Your task to perform on an android device: Go to location settings Image 0: 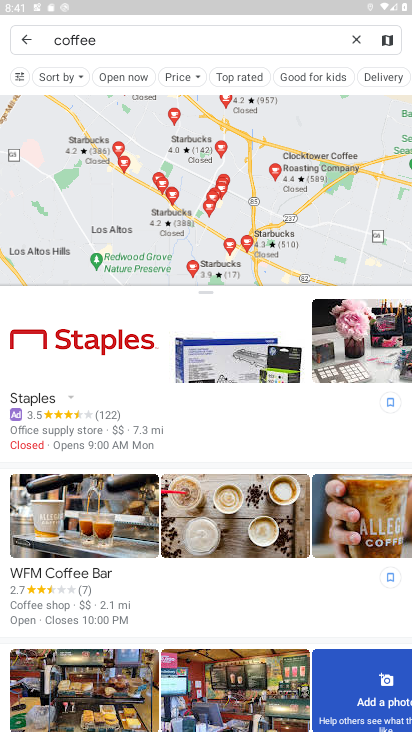
Step 0: press home button
Your task to perform on an android device: Go to location settings Image 1: 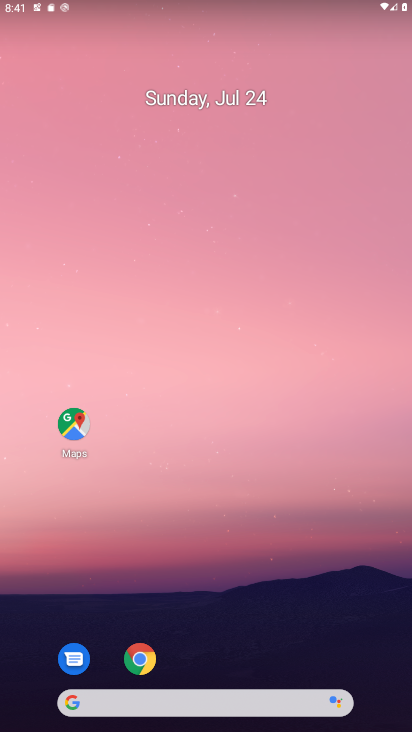
Step 1: drag from (218, 606) to (218, 236)
Your task to perform on an android device: Go to location settings Image 2: 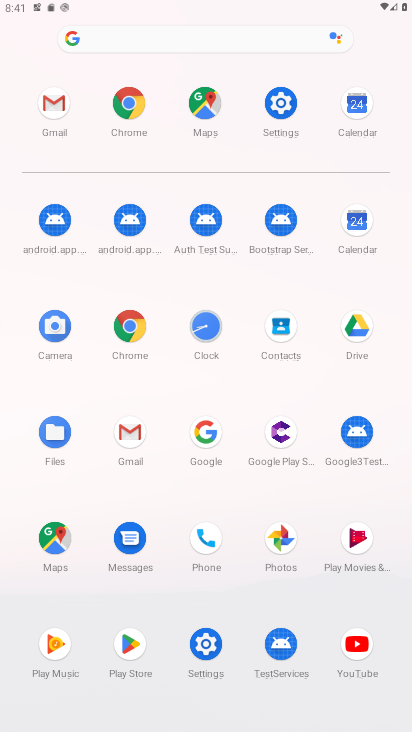
Step 2: click (279, 103)
Your task to perform on an android device: Go to location settings Image 3: 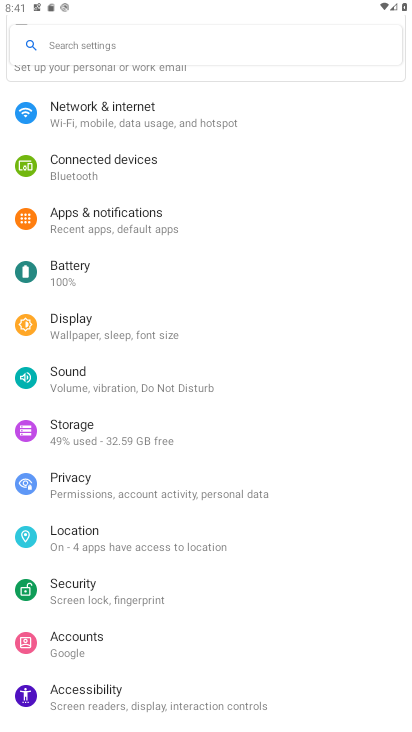
Step 3: click (74, 537)
Your task to perform on an android device: Go to location settings Image 4: 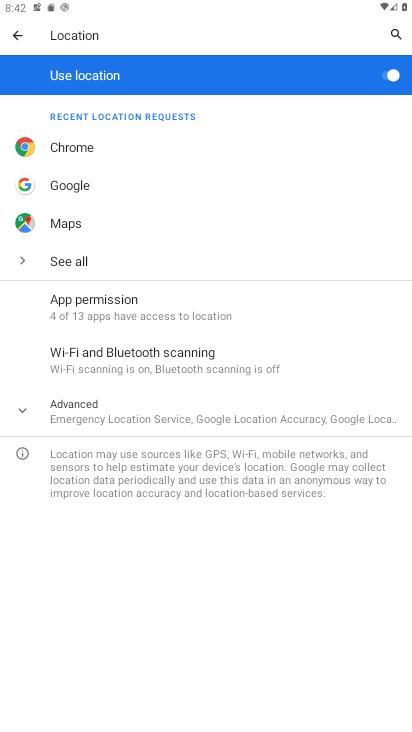
Step 4: task complete